Your task to perform on an android device: open app "DoorDash - Food Delivery" Image 0: 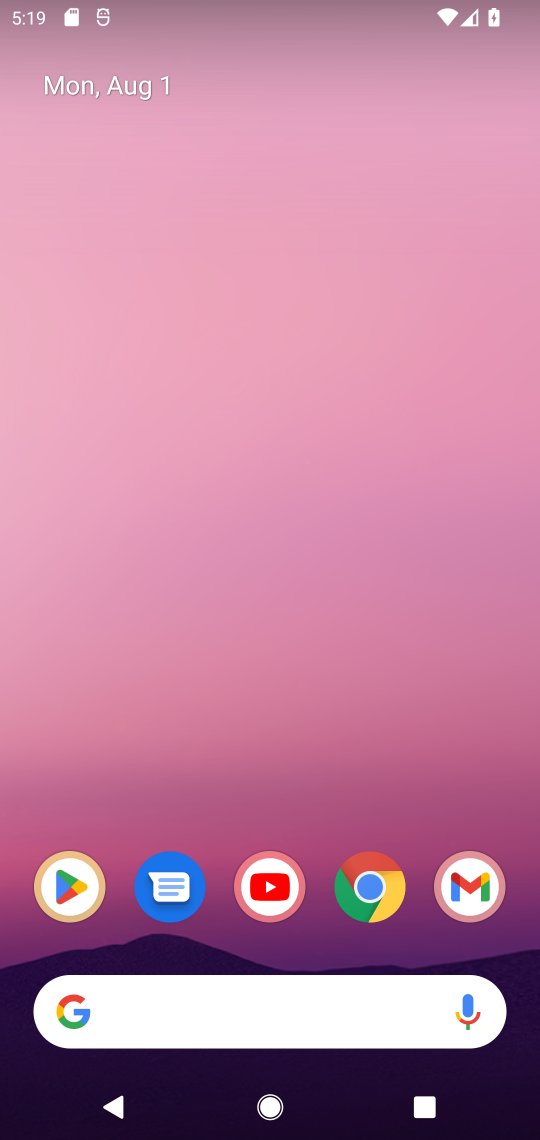
Step 0: click (79, 896)
Your task to perform on an android device: open app "DoorDash - Food Delivery" Image 1: 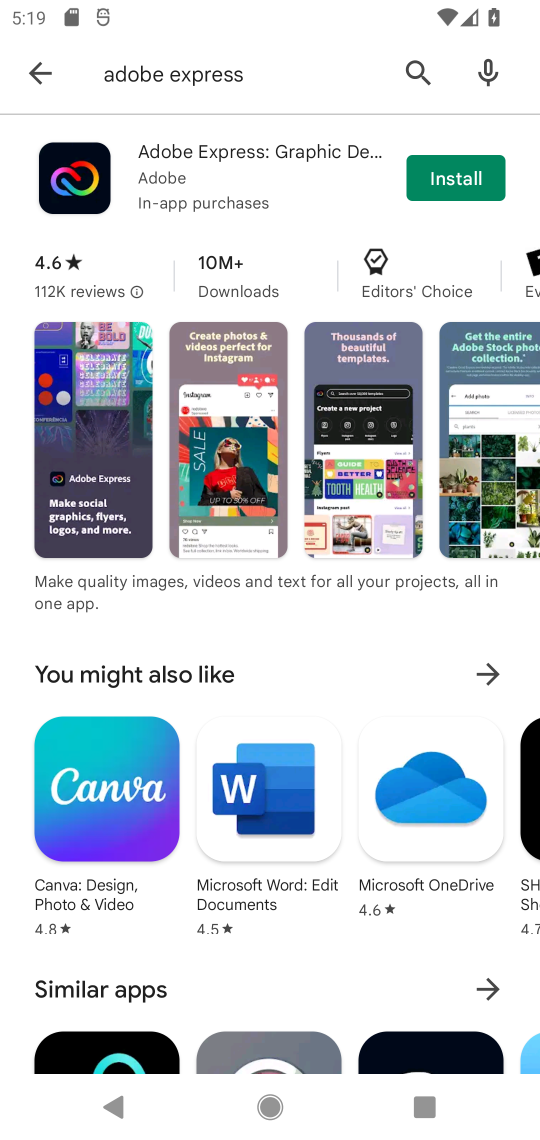
Step 1: click (43, 67)
Your task to perform on an android device: open app "DoorDash - Food Delivery" Image 2: 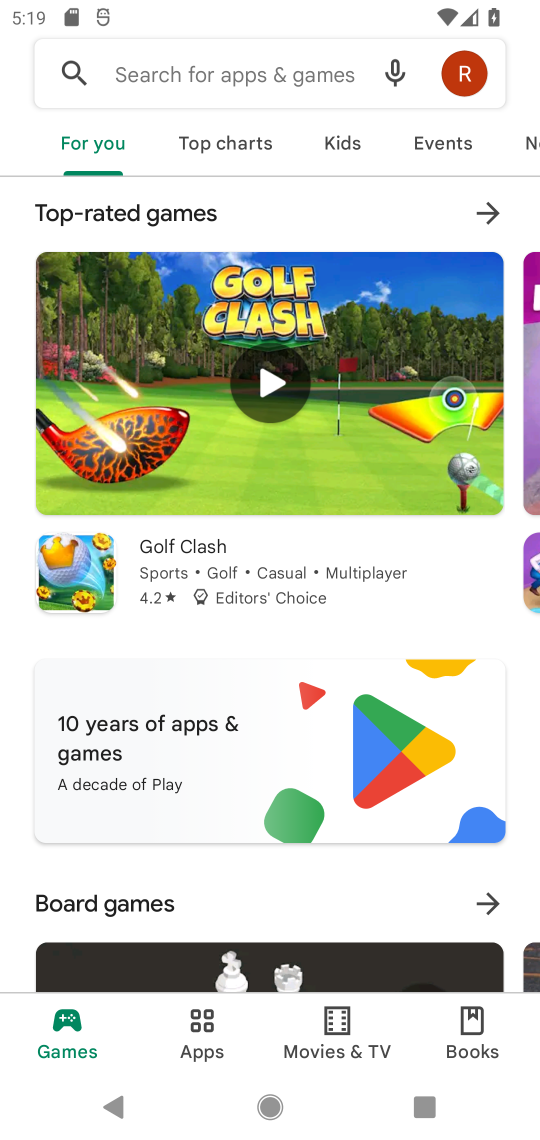
Step 2: click (299, 69)
Your task to perform on an android device: open app "DoorDash - Food Delivery" Image 3: 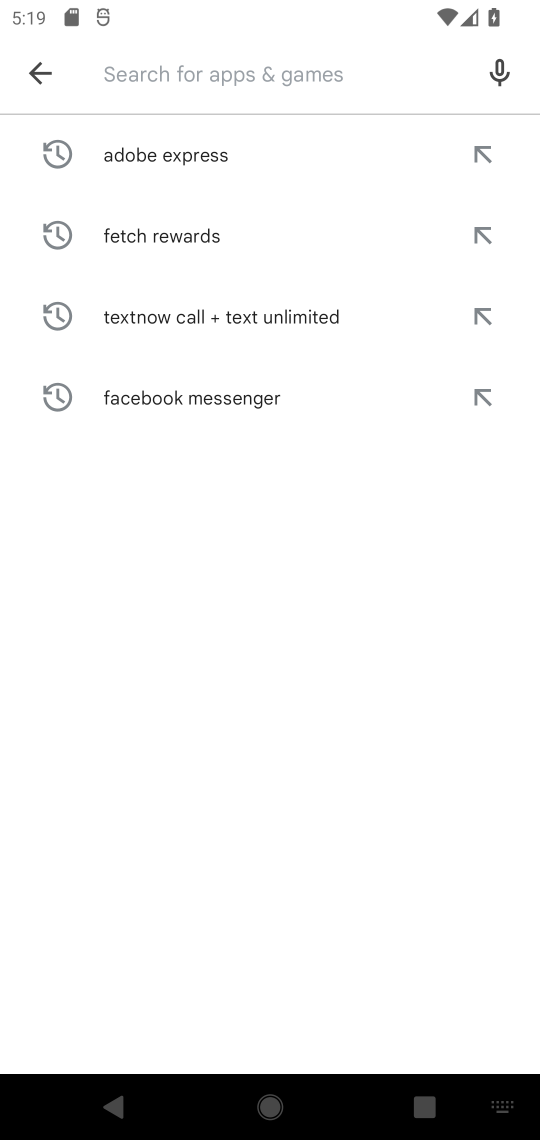
Step 3: type "DoorDash - Food Delivery"
Your task to perform on an android device: open app "DoorDash - Food Delivery" Image 4: 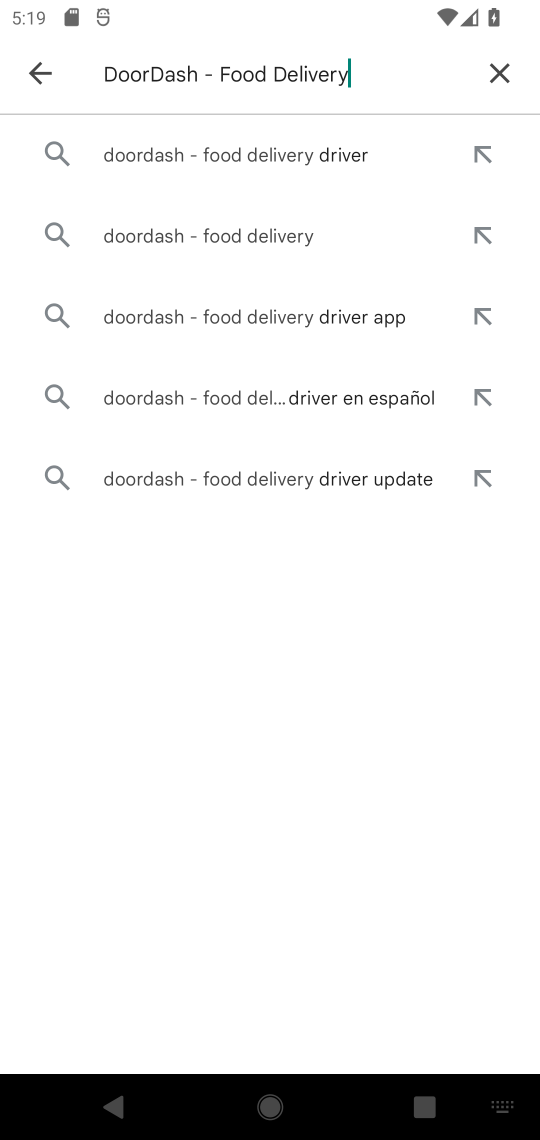
Step 4: click (174, 158)
Your task to perform on an android device: open app "DoorDash - Food Delivery" Image 5: 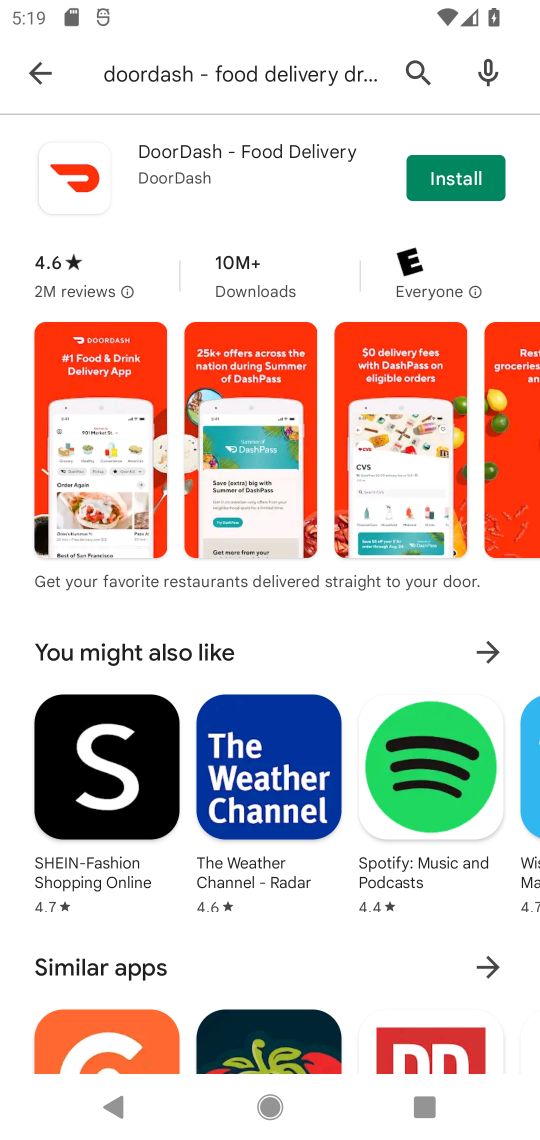
Step 5: task complete